Your task to perform on an android device: Open Amazon Image 0: 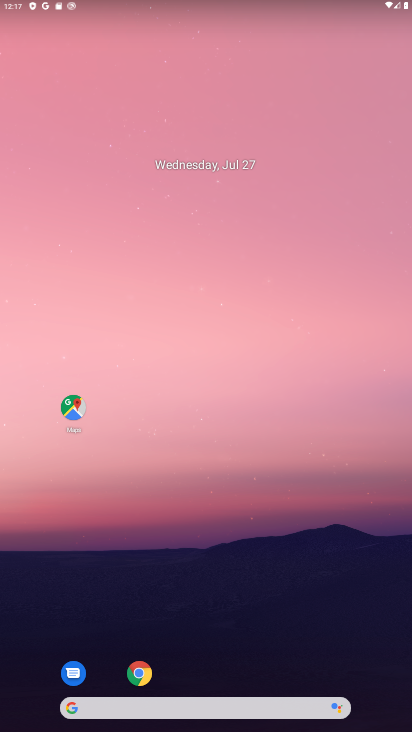
Step 0: click (135, 677)
Your task to perform on an android device: Open Amazon Image 1: 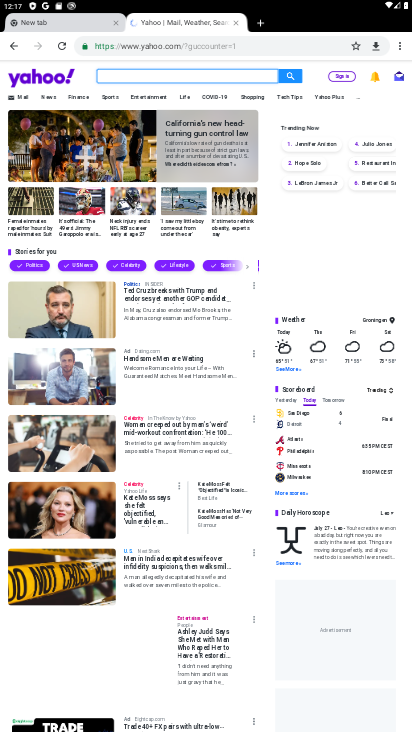
Step 1: click (237, 24)
Your task to perform on an android device: Open Amazon Image 2: 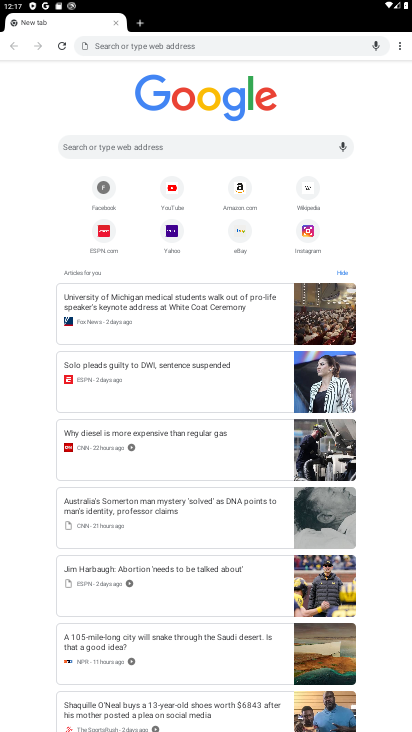
Step 2: click (237, 196)
Your task to perform on an android device: Open Amazon Image 3: 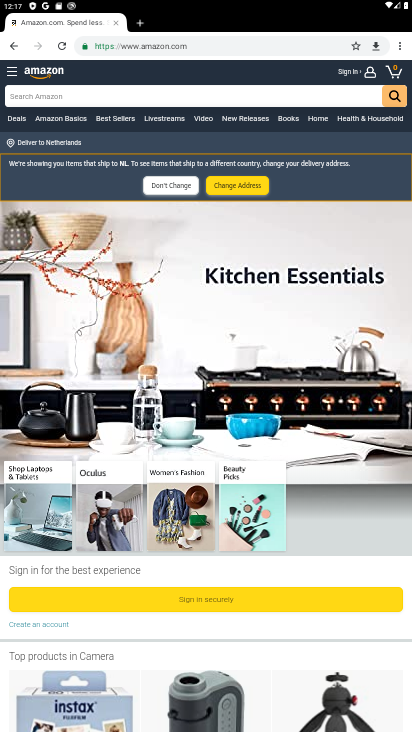
Step 3: task complete